Your task to perform on an android device: turn off wifi Image 0: 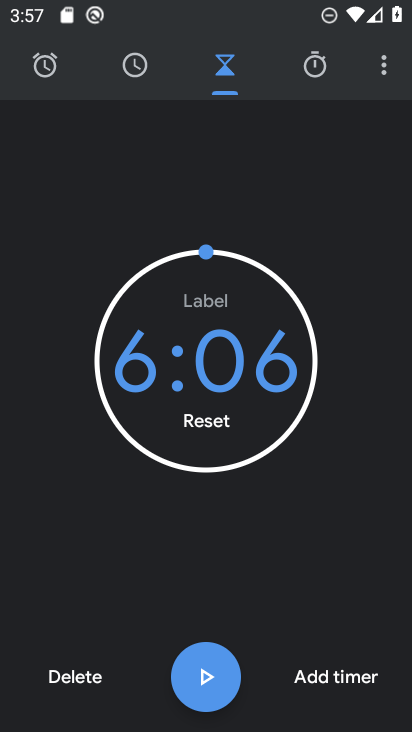
Step 0: press home button
Your task to perform on an android device: turn off wifi Image 1: 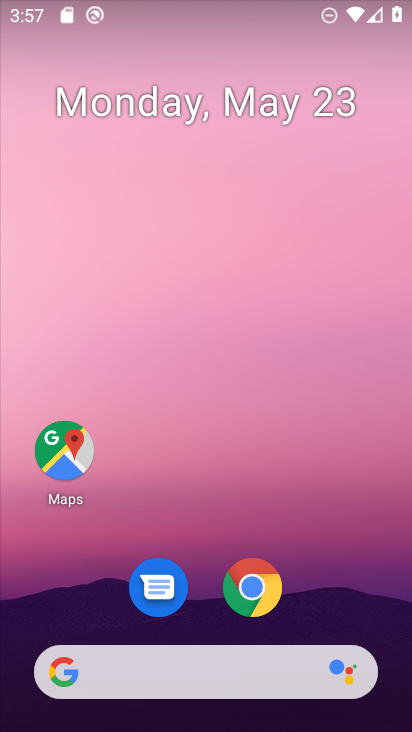
Step 1: drag from (199, 578) to (190, 124)
Your task to perform on an android device: turn off wifi Image 2: 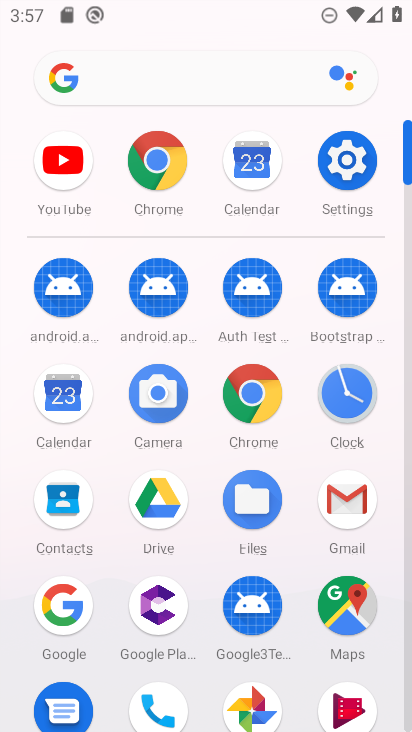
Step 2: click (350, 173)
Your task to perform on an android device: turn off wifi Image 3: 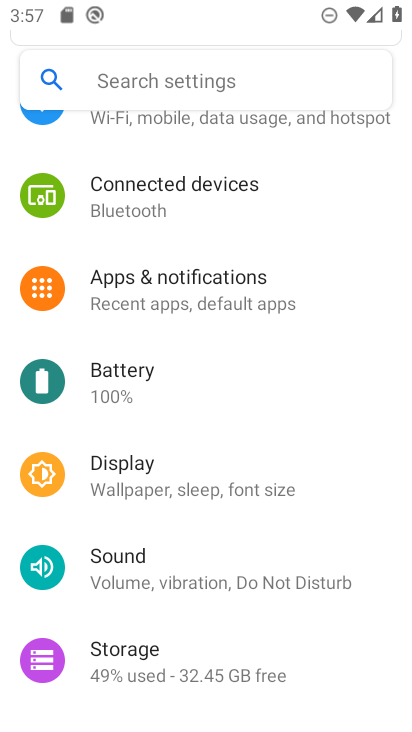
Step 3: drag from (240, 262) to (263, 677)
Your task to perform on an android device: turn off wifi Image 4: 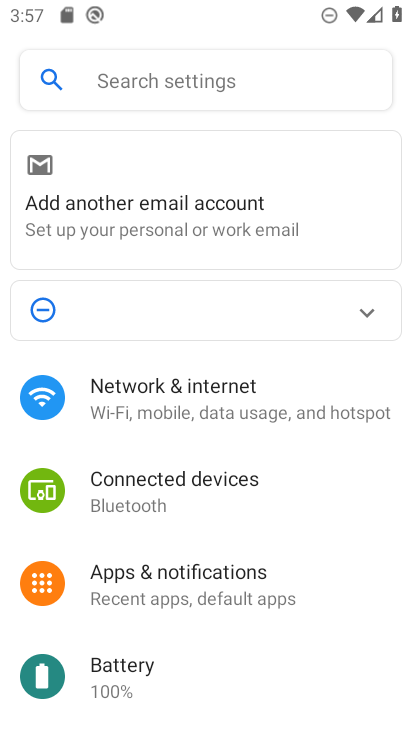
Step 4: click (223, 390)
Your task to perform on an android device: turn off wifi Image 5: 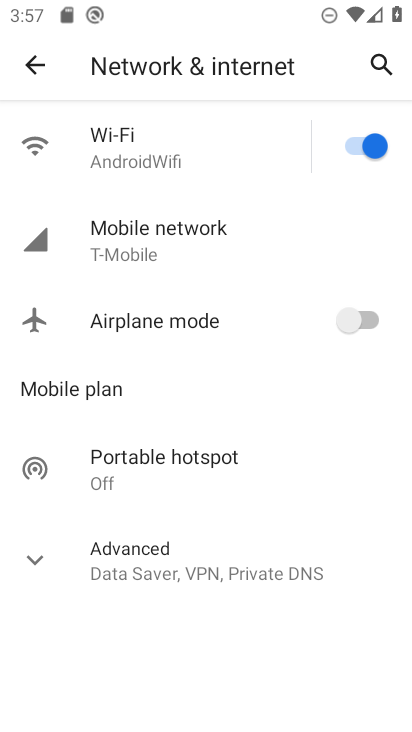
Step 5: click (341, 139)
Your task to perform on an android device: turn off wifi Image 6: 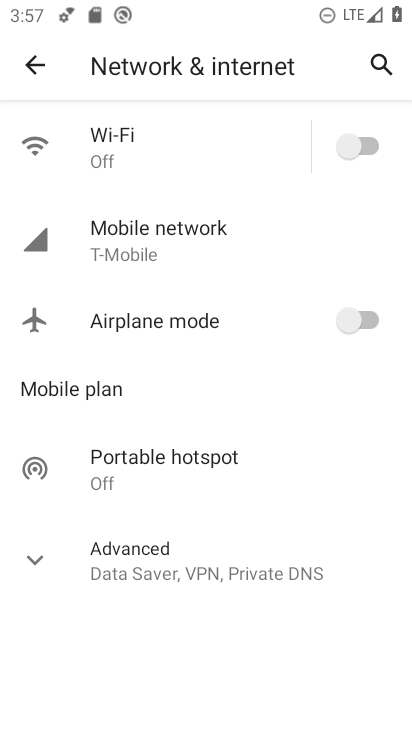
Step 6: task complete